Your task to perform on an android device: Open the stopwatch Image 0: 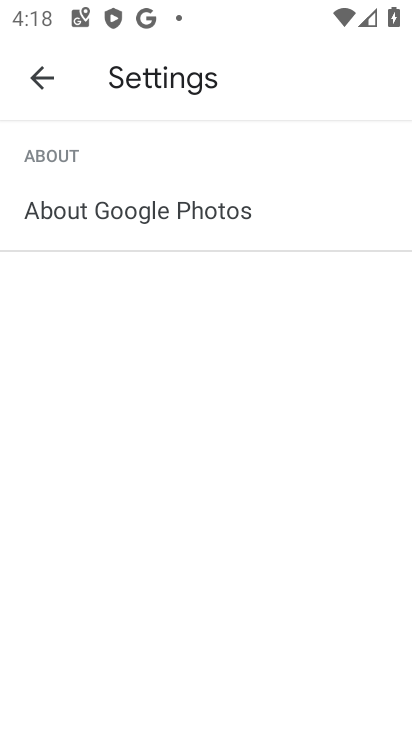
Step 0: press back button
Your task to perform on an android device: Open the stopwatch Image 1: 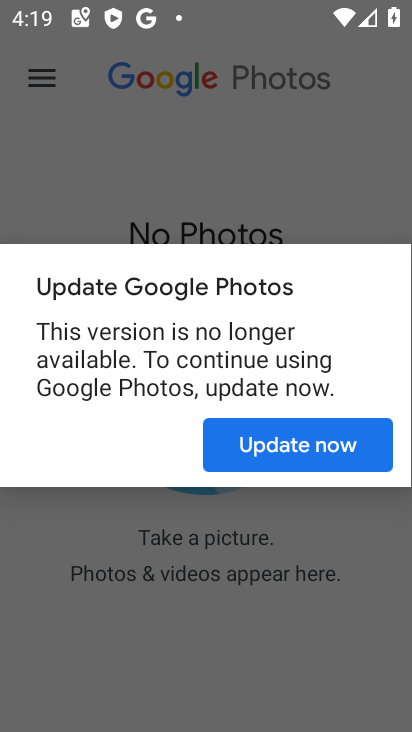
Step 1: press home button
Your task to perform on an android device: Open the stopwatch Image 2: 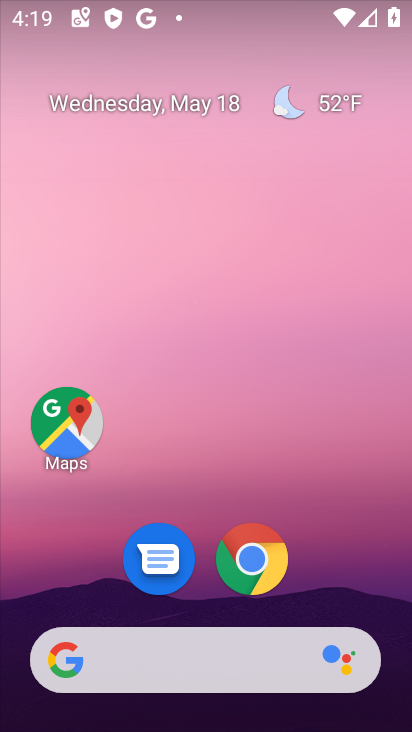
Step 2: drag from (170, 575) to (256, 112)
Your task to perform on an android device: Open the stopwatch Image 3: 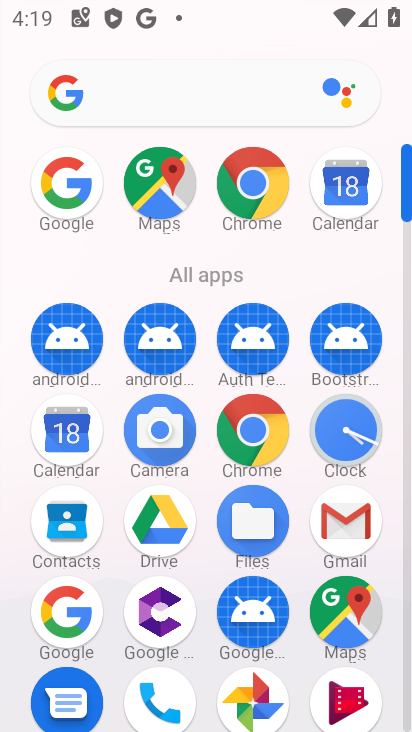
Step 3: click (337, 421)
Your task to perform on an android device: Open the stopwatch Image 4: 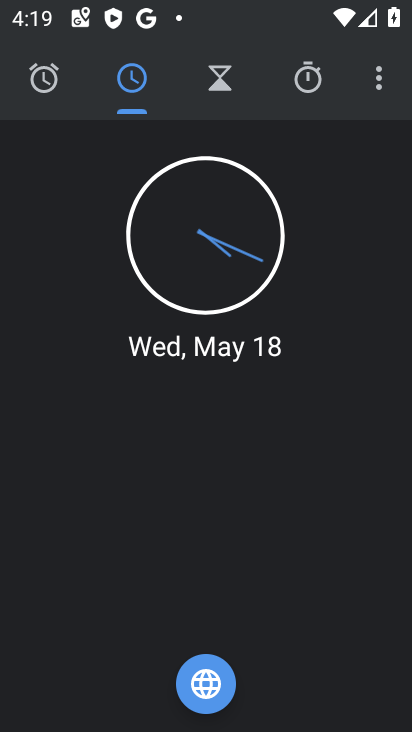
Step 4: click (296, 83)
Your task to perform on an android device: Open the stopwatch Image 5: 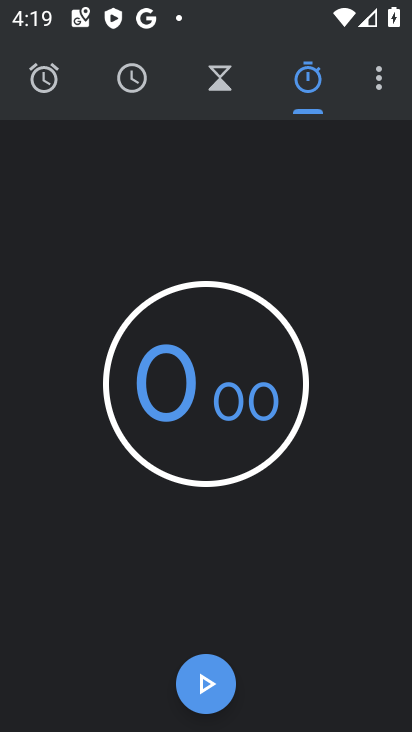
Step 5: task complete